Your task to perform on an android device: turn vacation reply on in the gmail app Image 0: 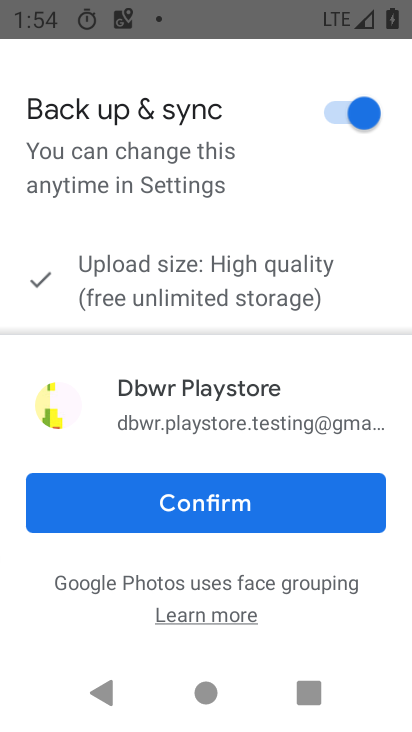
Step 0: press home button
Your task to perform on an android device: turn vacation reply on in the gmail app Image 1: 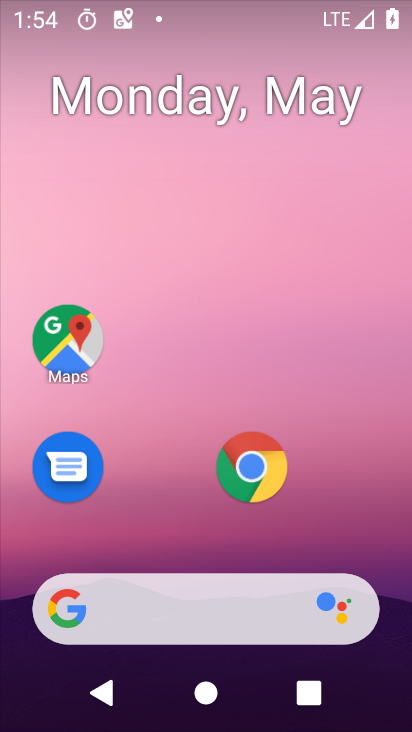
Step 1: drag from (186, 550) to (189, 294)
Your task to perform on an android device: turn vacation reply on in the gmail app Image 2: 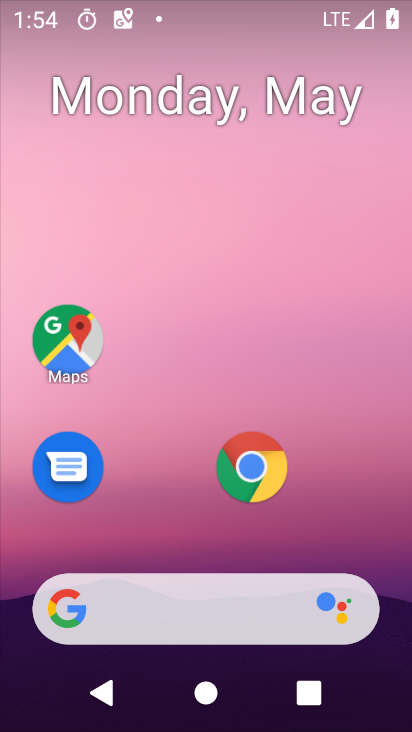
Step 2: drag from (192, 559) to (206, 229)
Your task to perform on an android device: turn vacation reply on in the gmail app Image 3: 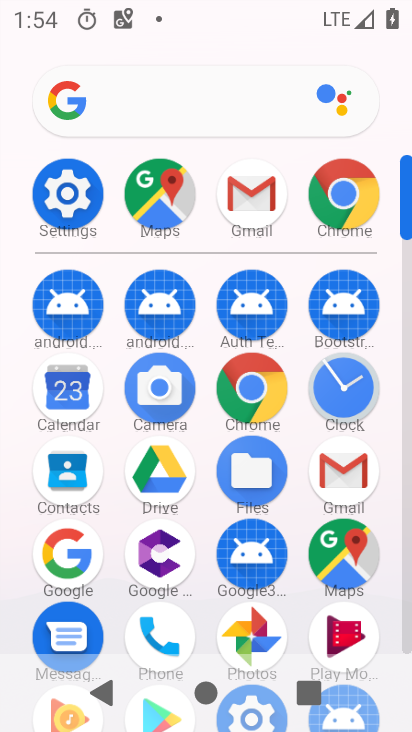
Step 3: click (335, 471)
Your task to perform on an android device: turn vacation reply on in the gmail app Image 4: 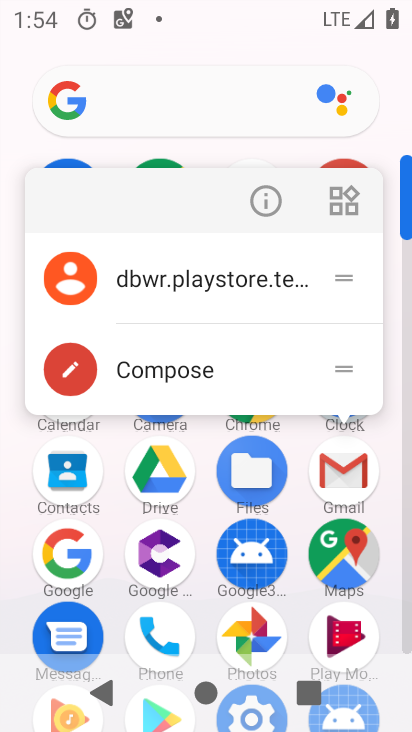
Step 4: click (274, 212)
Your task to perform on an android device: turn vacation reply on in the gmail app Image 5: 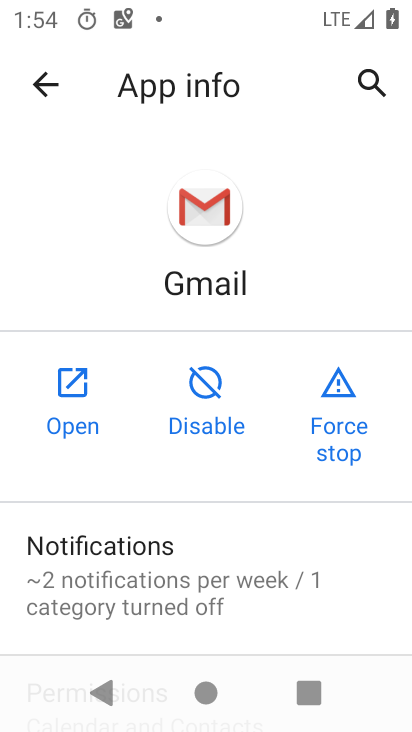
Step 5: click (77, 369)
Your task to perform on an android device: turn vacation reply on in the gmail app Image 6: 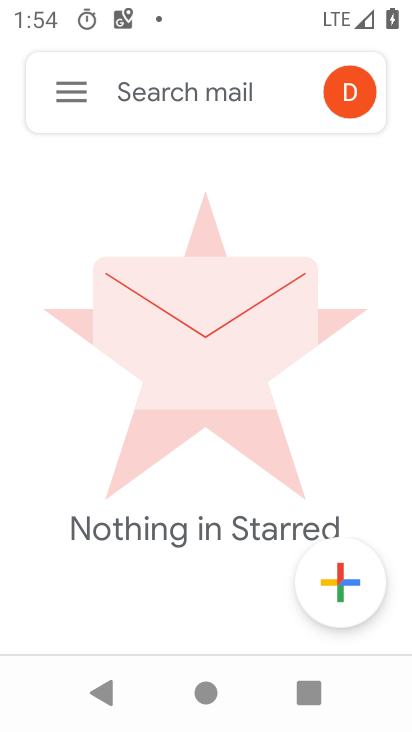
Step 6: click (60, 98)
Your task to perform on an android device: turn vacation reply on in the gmail app Image 7: 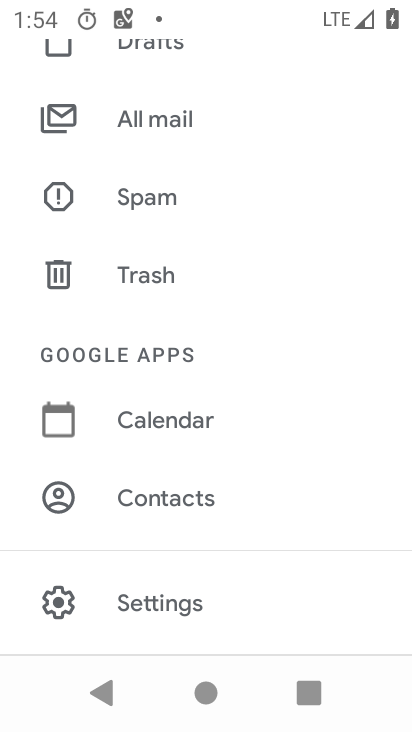
Step 7: click (202, 607)
Your task to perform on an android device: turn vacation reply on in the gmail app Image 8: 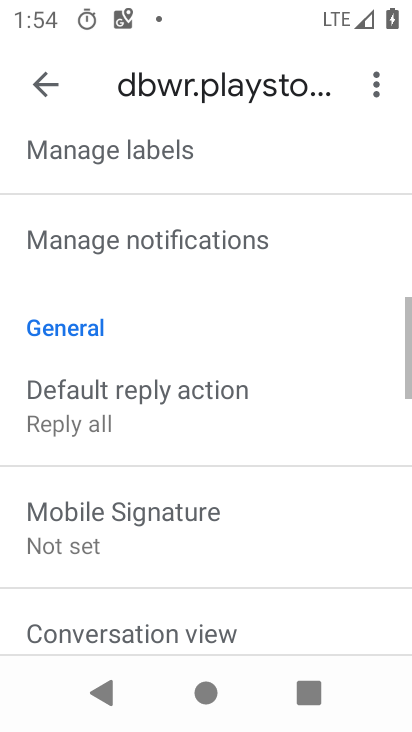
Step 8: drag from (213, 515) to (246, 136)
Your task to perform on an android device: turn vacation reply on in the gmail app Image 9: 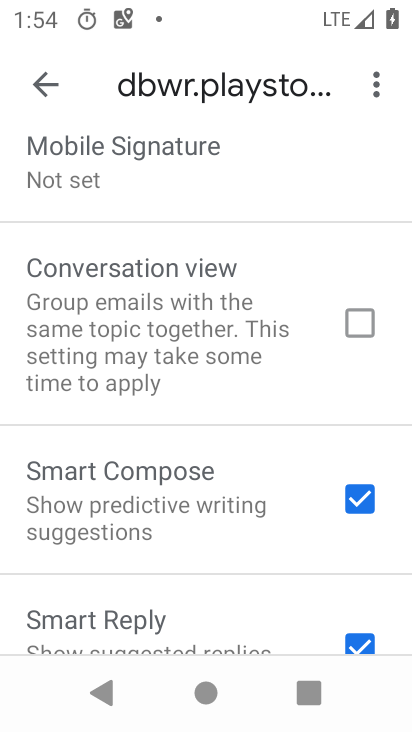
Step 9: drag from (201, 579) to (294, 80)
Your task to perform on an android device: turn vacation reply on in the gmail app Image 10: 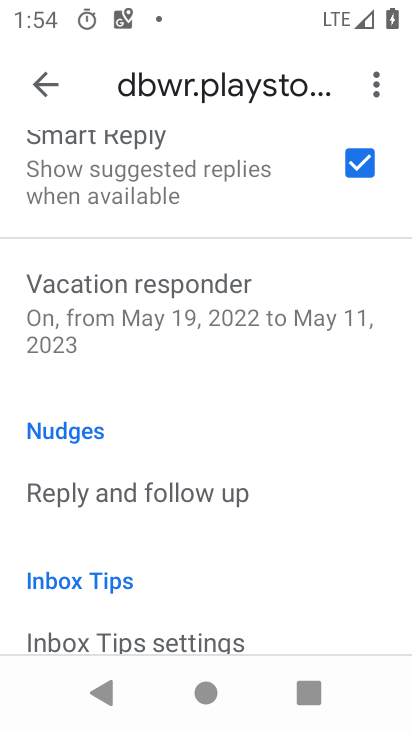
Step 10: click (193, 328)
Your task to perform on an android device: turn vacation reply on in the gmail app Image 11: 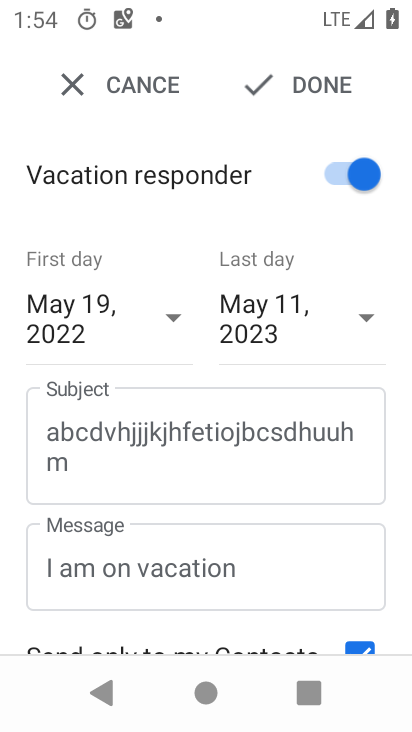
Step 11: click (289, 99)
Your task to perform on an android device: turn vacation reply on in the gmail app Image 12: 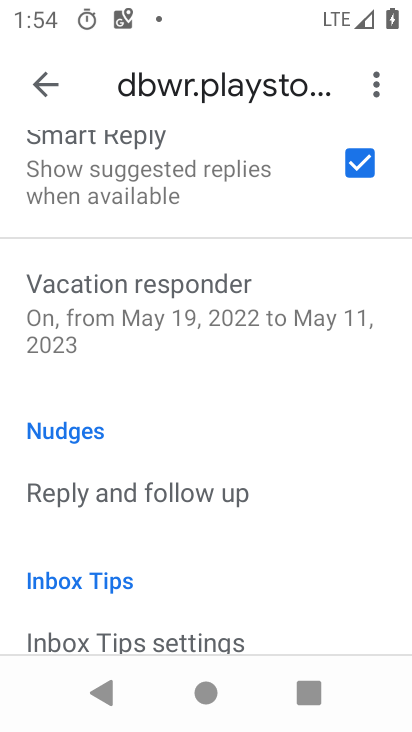
Step 12: task complete